Your task to perform on an android device: add a contact in the contacts app Image 0: 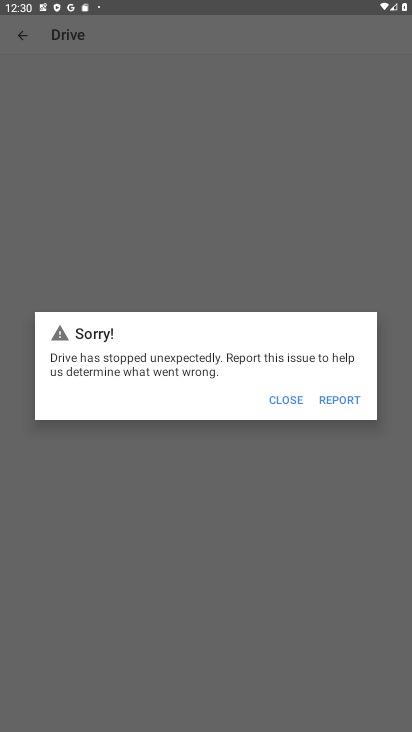
Step 0: press home button
Your task to perform on an android device: add a contact in the contacts app Image 1: 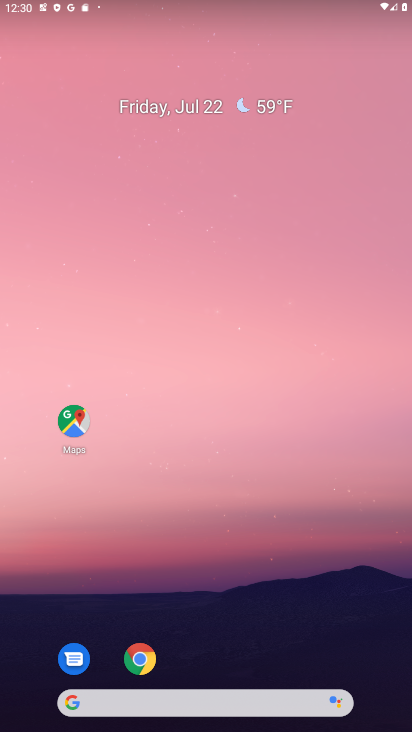
Step 1: drag from (321, 549) to (345, 13)
Your task to perform on an android device: add a contact in the contacts app Image 2: 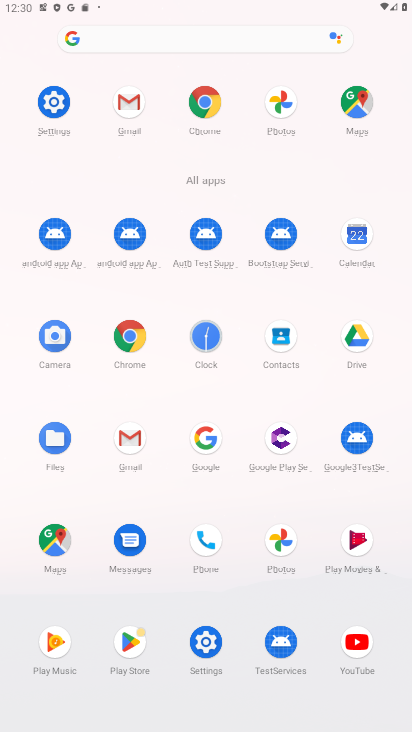
Step 2: click (206, 544)
Your task to perform on an android device: add a contact in the contacts app Image 3: 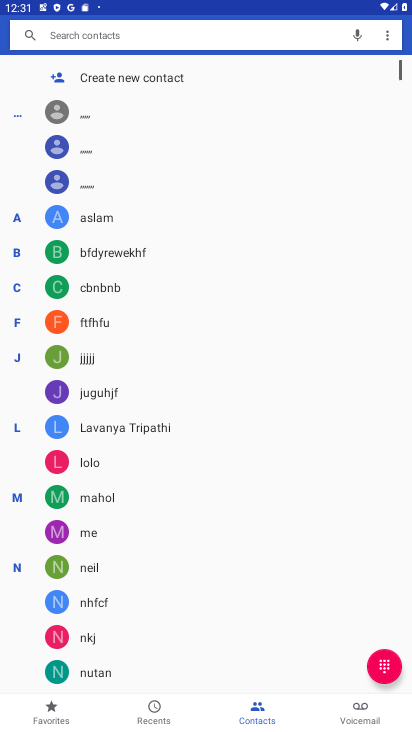
Step 3: click (120, 77)
Your task to perform on an android device: add a contact in the contacts app Image 4: 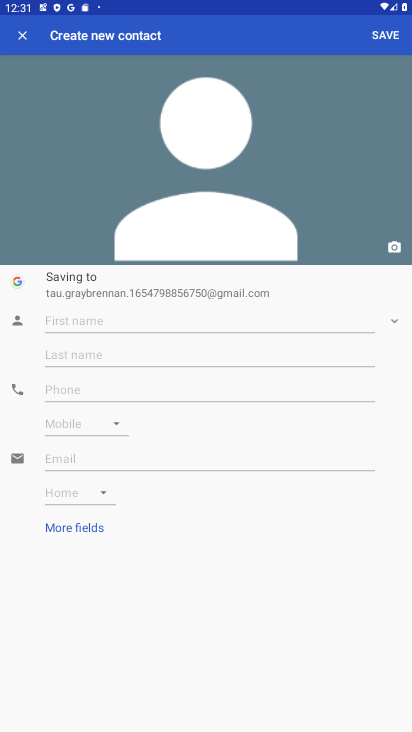
Step 4: click (111, 326)
Your task to perform on an android device: add a contact in the contacts app Image 5: 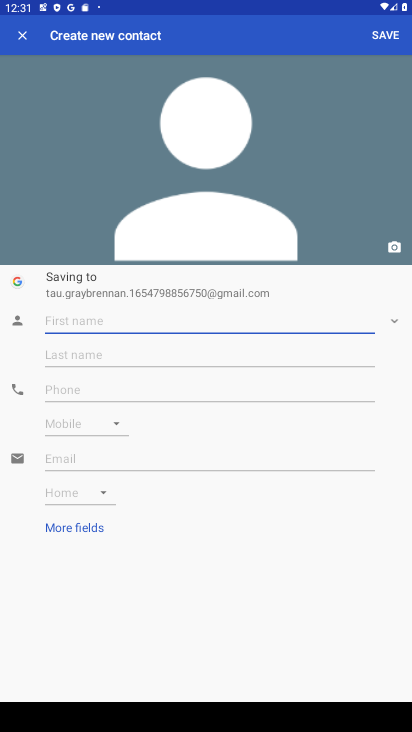
Step 5: type "tttuuut"
Your task to perform on an android device: add a contact in the contacts app Image 6: 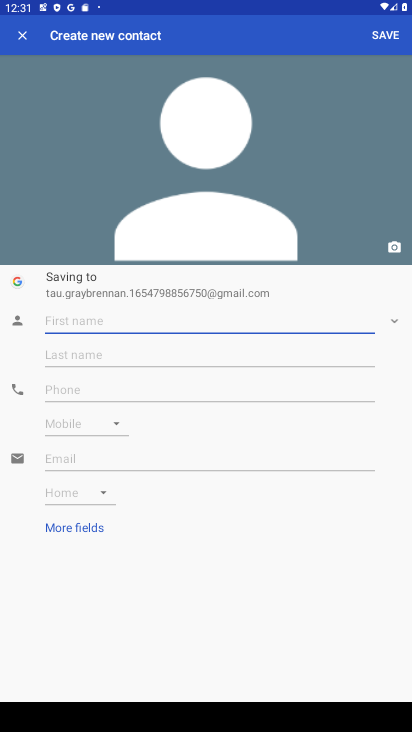
Step 6: click (86, 385)
Your task to perform on an android device: add a contact in the contacts app Image 7: 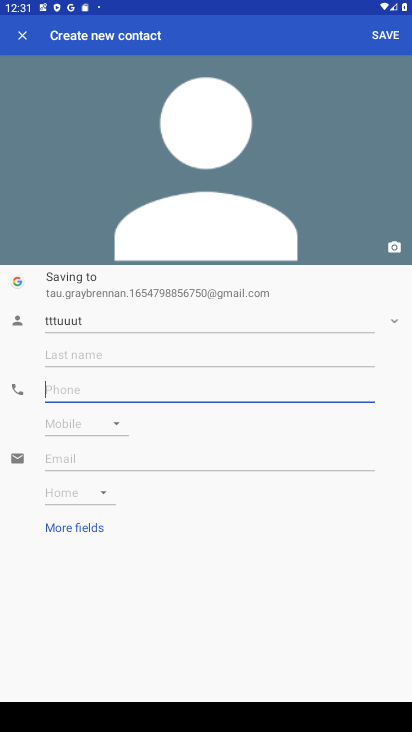
Step 7: type "67876567"
Your task to perform on an android device: add a contact in the contacts app Image 8: 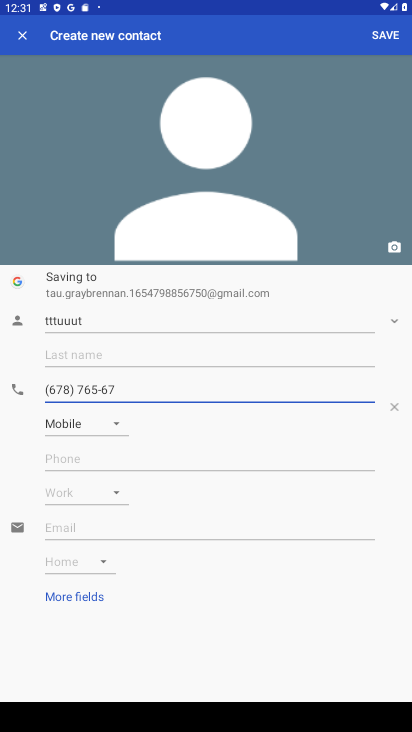
Step 8: click (385, 29)
Your task to perform on an android device: add a contact in the contacts app Image 9: 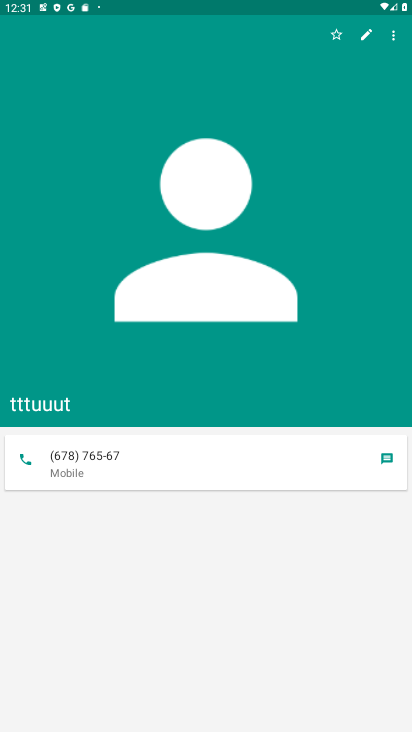
Step 9: task complete